Your task to perform on an android device: Go to Maps Image 0: 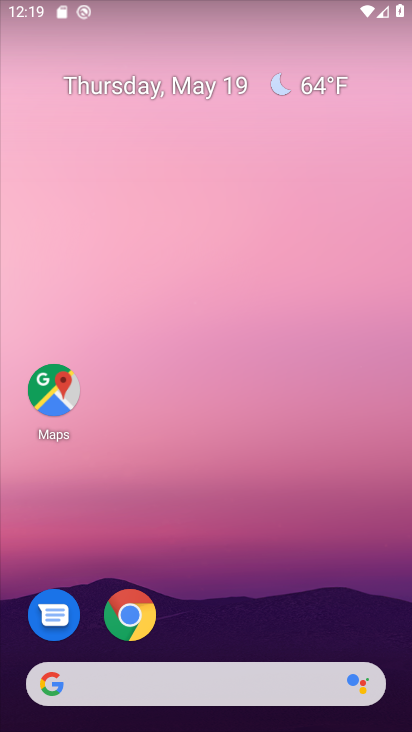
Step 0: drag from (281, 682) to (402, 189)
Your task to perform on an android device: Go to Maps Image 1: 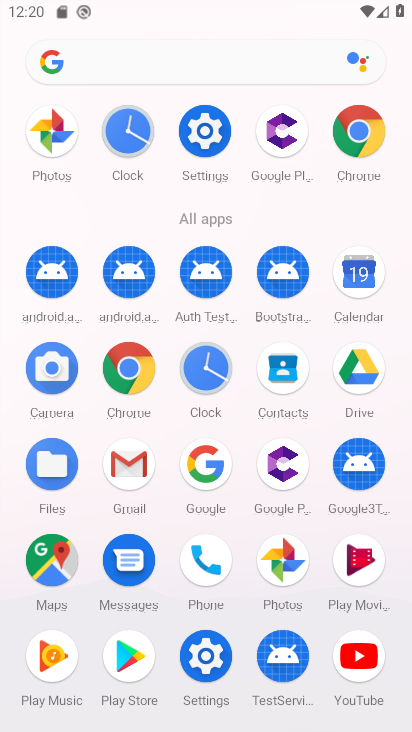
Step 1: click (48, 561)
Your task to perform on an android device: Go to Maps Image 2: 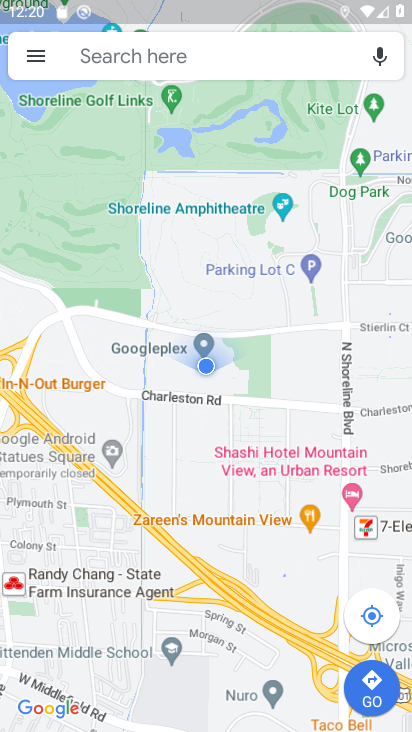
Step 2: task complete